Your task to perform on an android device: open wifi settings Image 0: 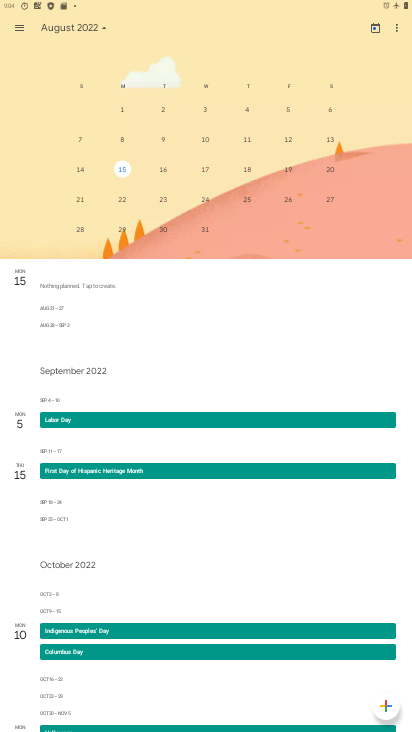
Step 0: press home button
Your task to perform on an android device: open wifi settings Image 1: 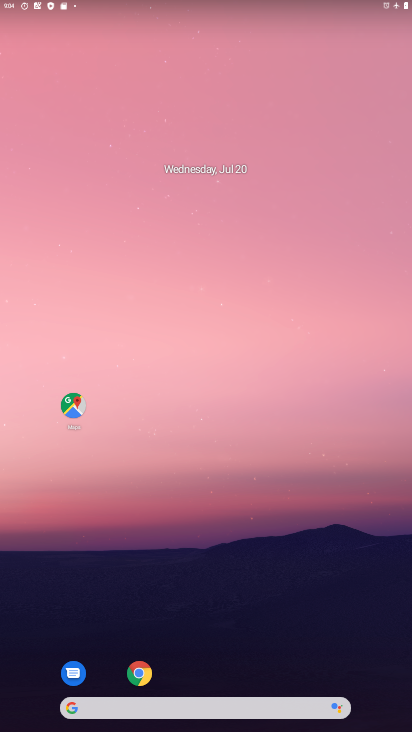
Step 1: drag from (218, 671) to (205, 90)
Your task to perform on an android device: open wifi settings Image 2: 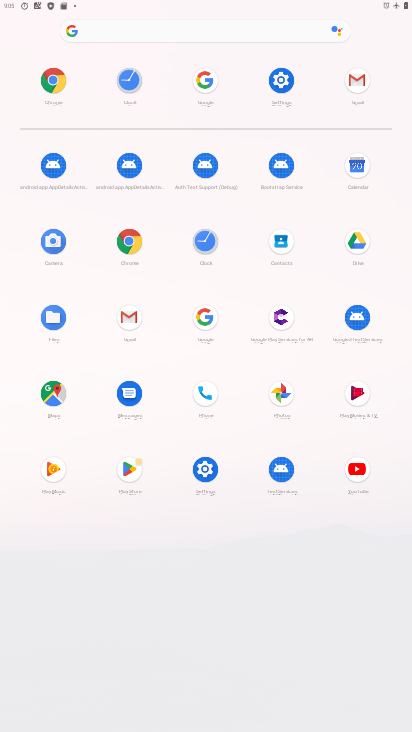
Step 2: click (278, 82)
Your task to perform on an android device: open wifi settings Image 3: 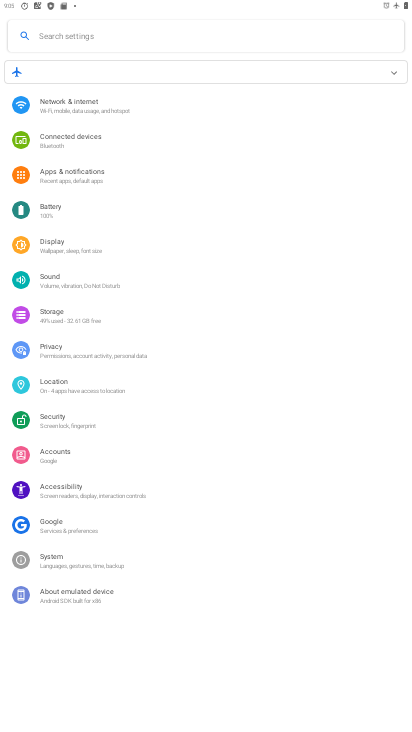
Step 3: click (88, 110)
Your task to perform on an android device: open wifi settings Image 4: 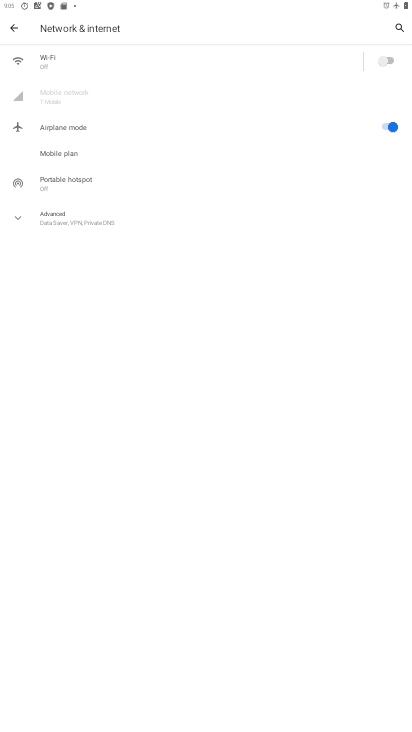
Step 4: click (386, 58)
Your task to perform on an android device: open wifi settings Image 5: 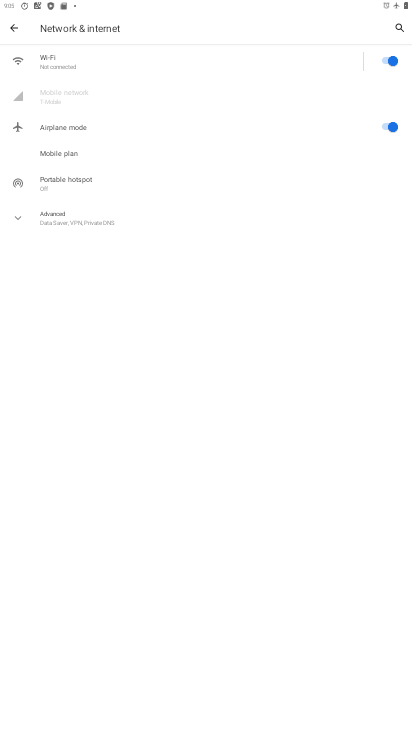
Step 5: click (140, 64)
Your task to perform on an android device: open wifi settings Image 6: 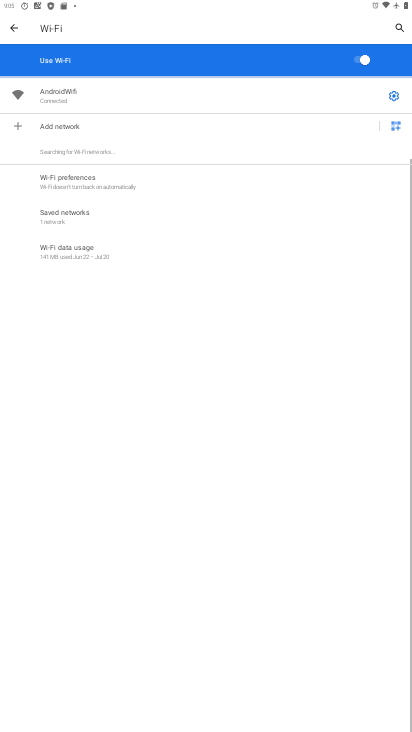
Step 6: click (170, 99)
Your task to perform on an android device: open wifi settings Image 7: 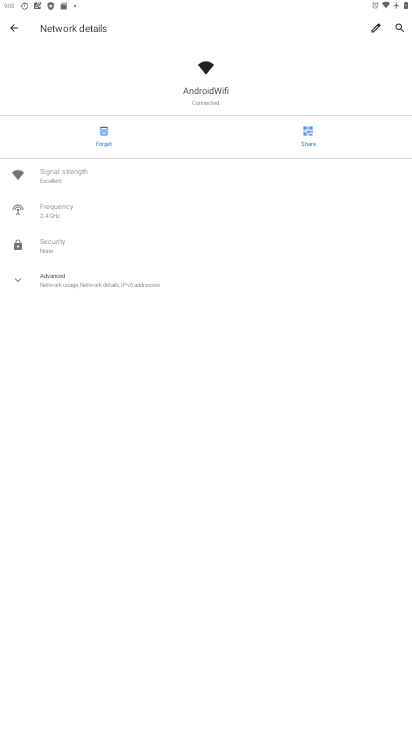
Step 7: task complete